Your task to perform on an android device: change your default location settings in chrome Image 0: 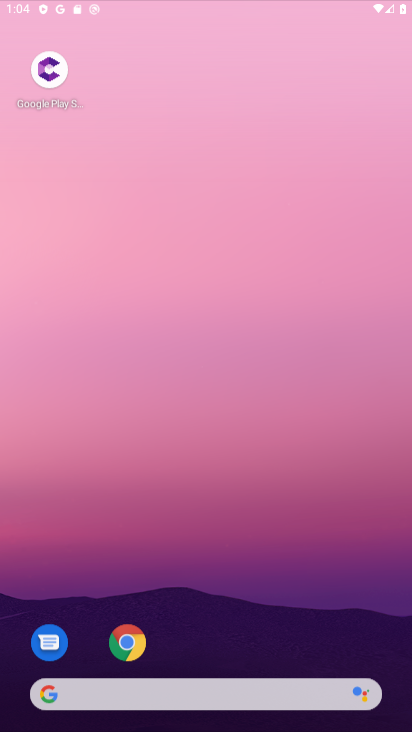
Step 0: press home button
Your task to perform on an android device: change your default location settings in chrome Image 1: 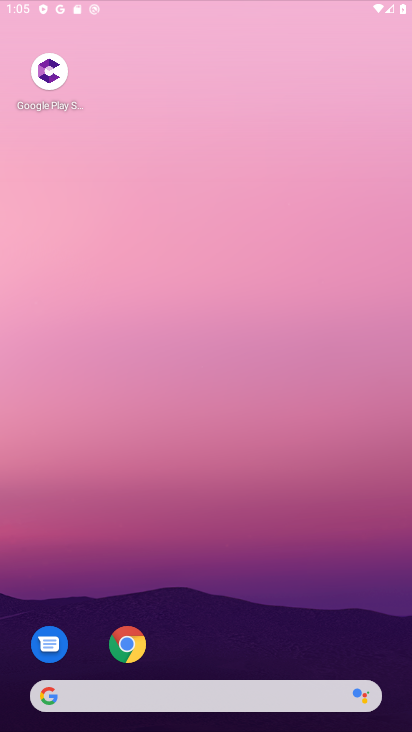
Step 1: click (128, 645)
Your task to perform on an android device: change your default location settings in chrome Image 2: 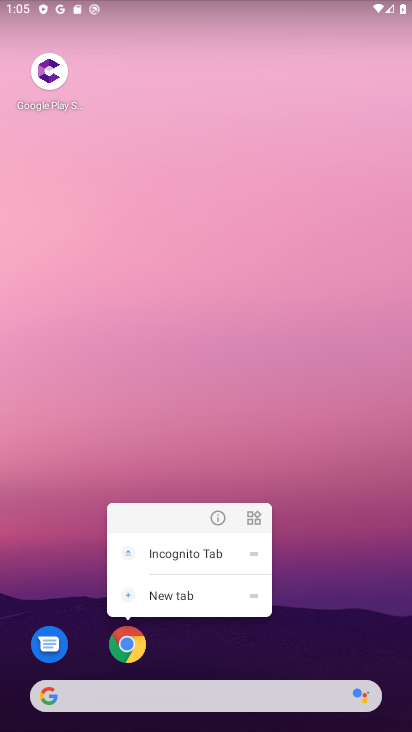
Step 2: click (132, 650)
Your task to perform on an android device: change your default location settings in chrome Image 3: 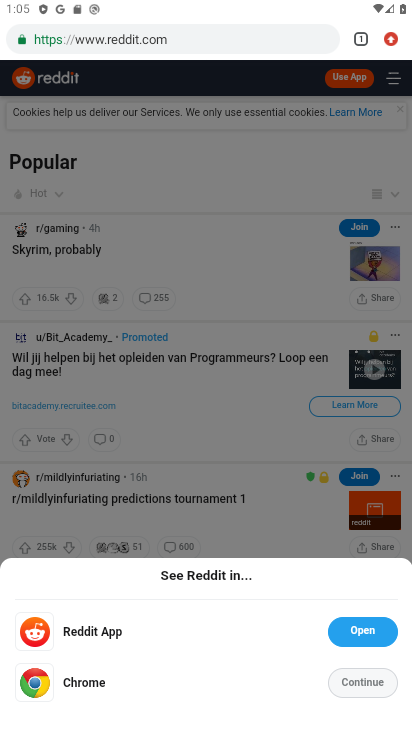
Step 3: click (388, 38)
Your task to perform on an android device: change your default location settings in chrome Image 4: 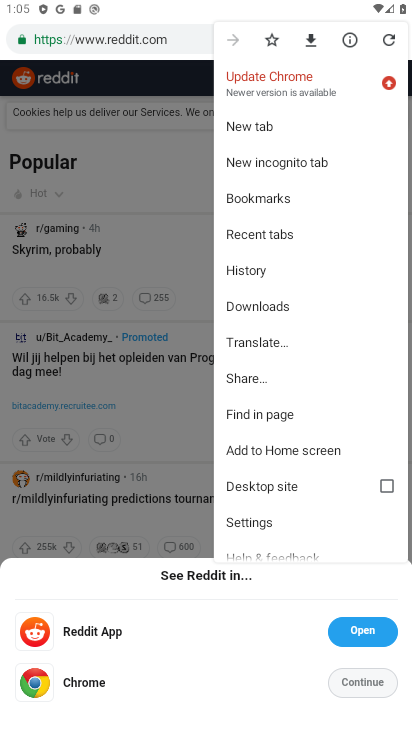
Step 4: click (273, 526)
Your task to perform on an android device: change your default location settings in chrome Image 5: 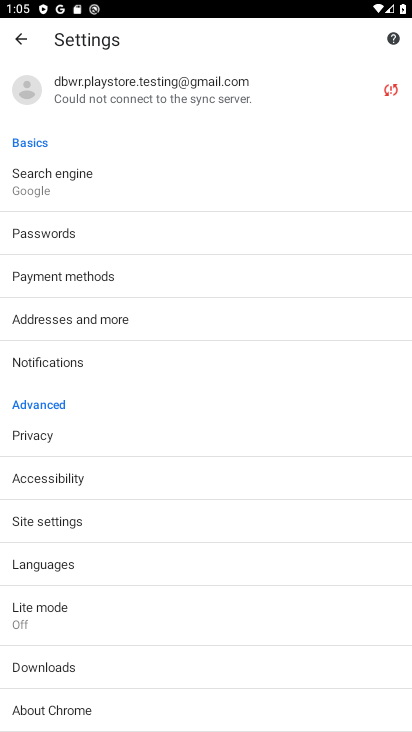
Step 5: click (65, 523)
Your task to perform on an android device: change your default location settings in chrome Image 6: 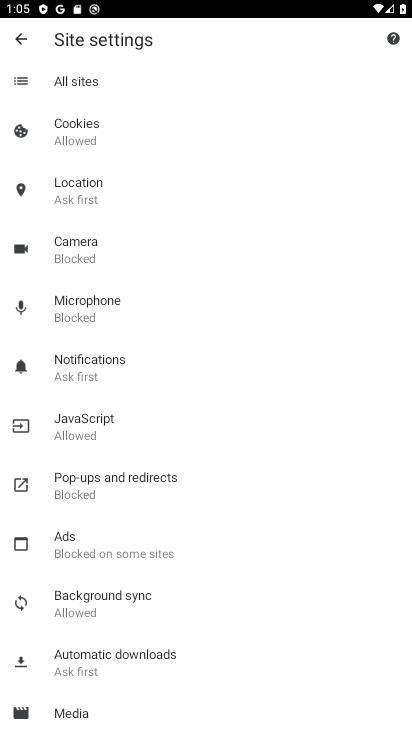
Step 6: click (80, 191)
Your task to perform on an android device: change your default location settings in chrome Image 7: 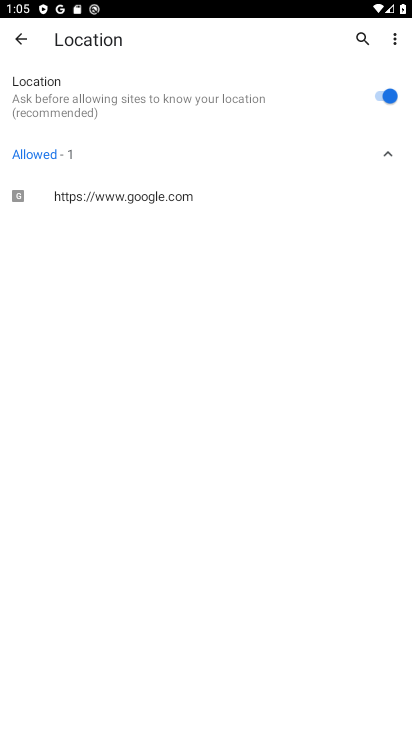
Step 7: click (379, 96)
Your task to perform on an android device: change your default location settings in chrome Image 8: 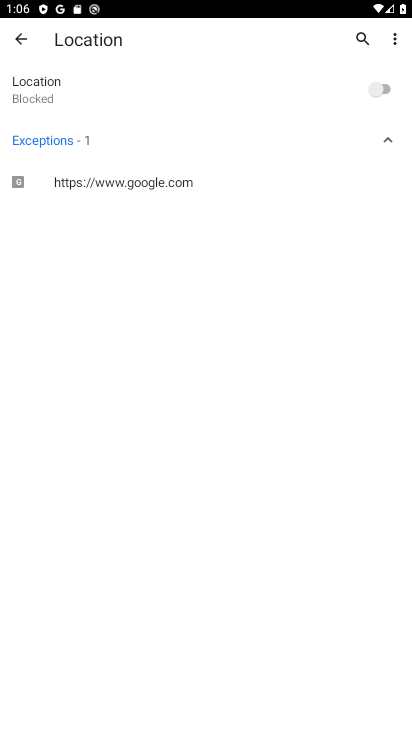
Step 8: task complete